Your task to perform on an android device: change the clock display to show seconds Image 0: 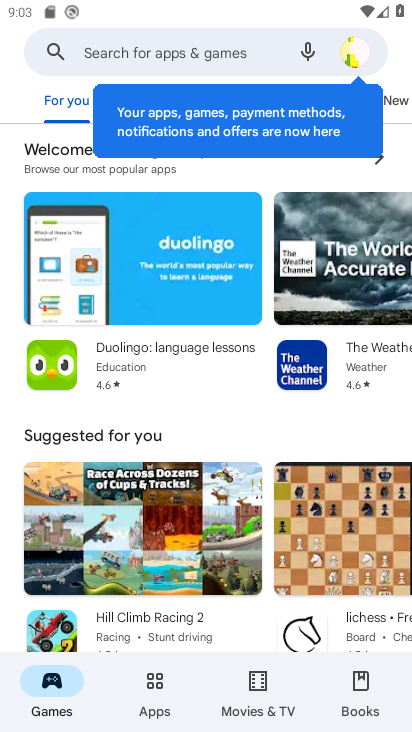
Step 0: press home button
Your task to perform on an android device: change the clock display to show seconds Image 1: 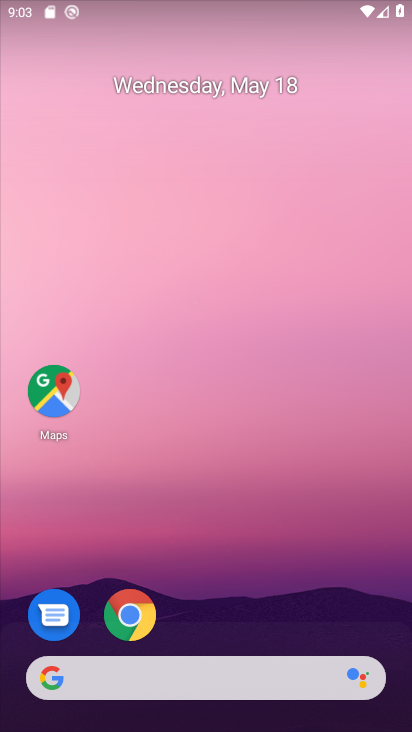
Step 1: drag from (268, 511) to (254, 2)
Your task to perform on an android device: change the clock display to show seconds Image 2: 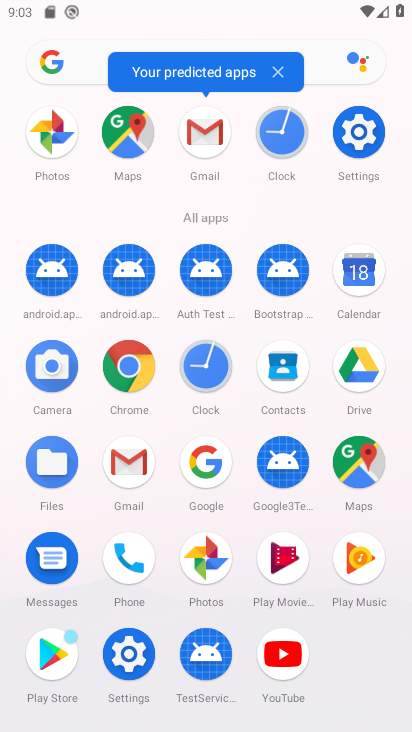
Step 2: click (211, 364)
Your task to perform on an android device: change the clock display to show seconds Image 3: 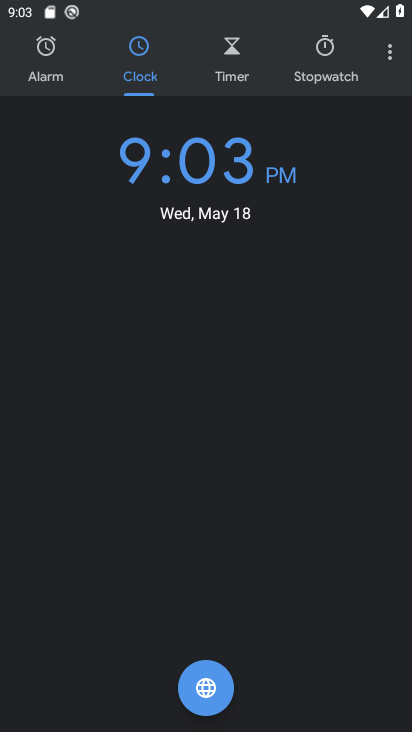
Step 3: click (386, 63)
Your task to perform on an android device: change the clock display to show seconds Image 4: 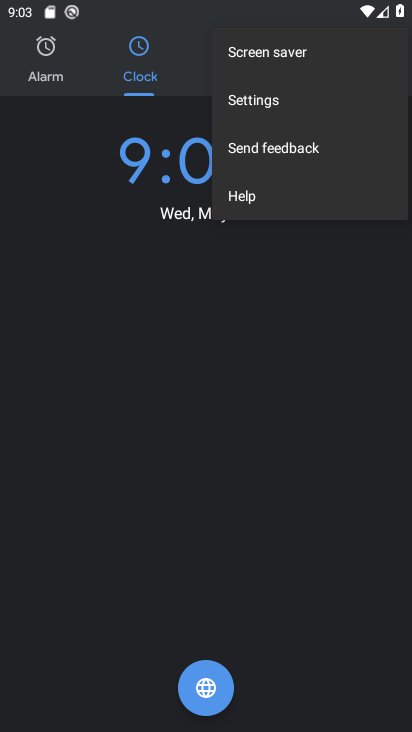
Step 4: click (334, 92)
Your task to perform on an android device: change the clock display to show seconds Image 5: 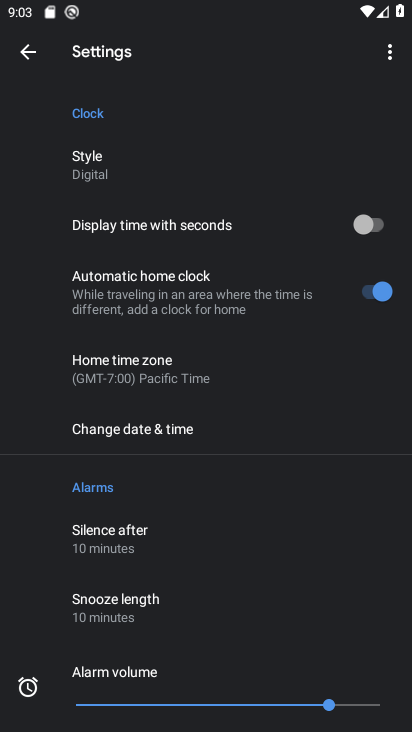
Step 5: click (358, 228)
Your task to perform on an android device: change the clock display to show seconds Image 6: 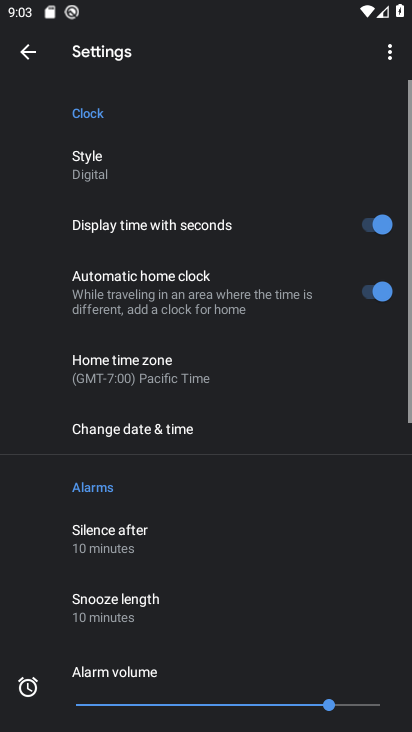
Step 6: task complete